Your task to perform on an android device: change the clock display to digital Image 0: 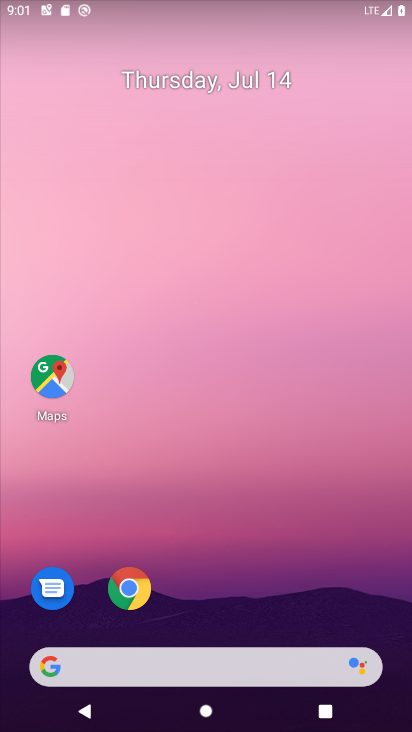
Step 0: drag from (267, 571) to (296, 57)
Your task to perform on an android device: change the clock display to digital Image 1: 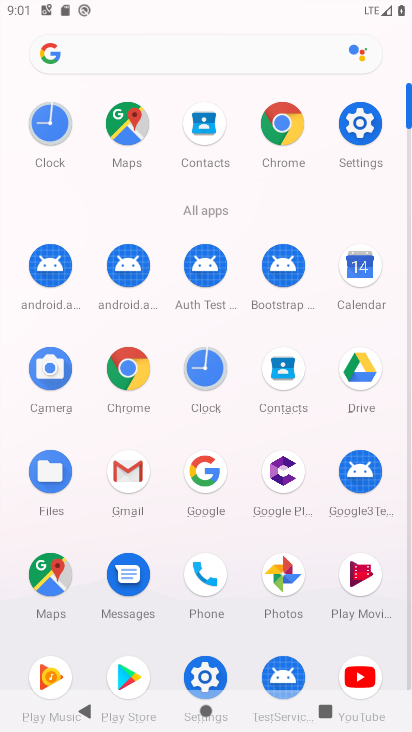
Step 1: click (196, 367)
Your task to perform on an android device: change the clock display to digital Image 2: 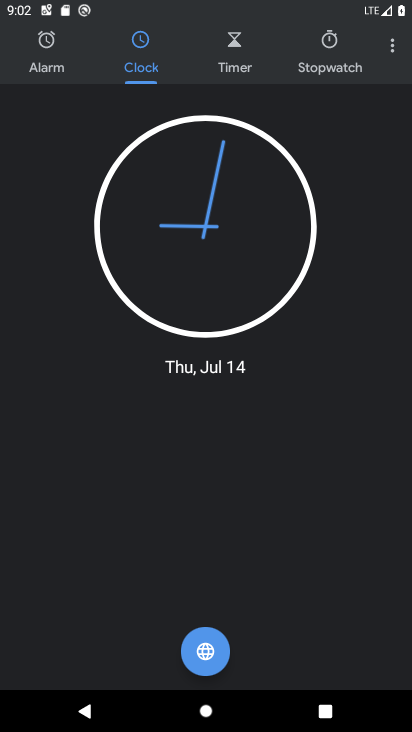
Step 2: click (396, 46)
Your task to perform on an android device: change the clock display to digital Image 3: 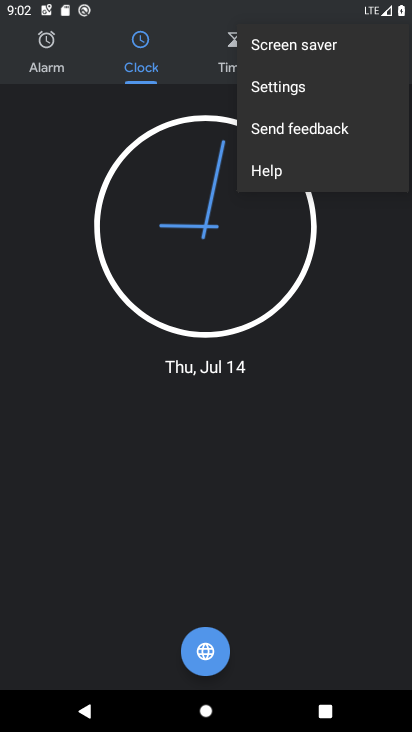
Step 3: click (287, 89)
Your task to perform on an android device: change the clock display to digital Image 4: 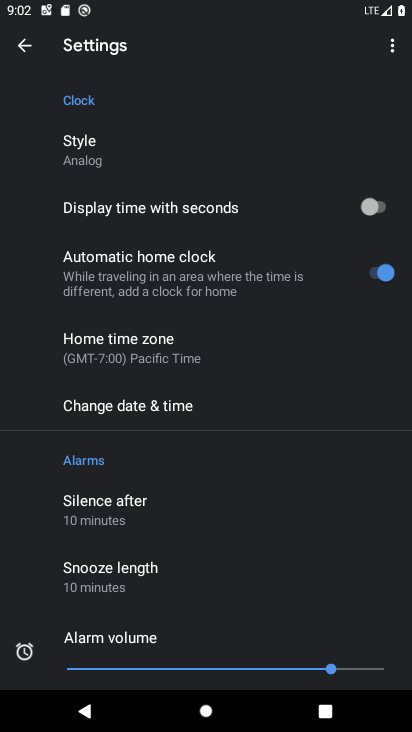
Step 4: click (94, 142)
Your task to perform on an android device: change the clock display to digital Image 5: 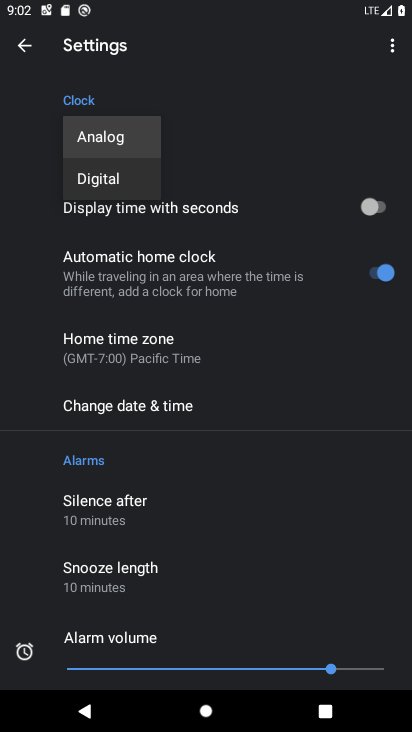
Step 5: click (110, 175)
Your task to perform on an android device: change the clock display to digital Image 6: 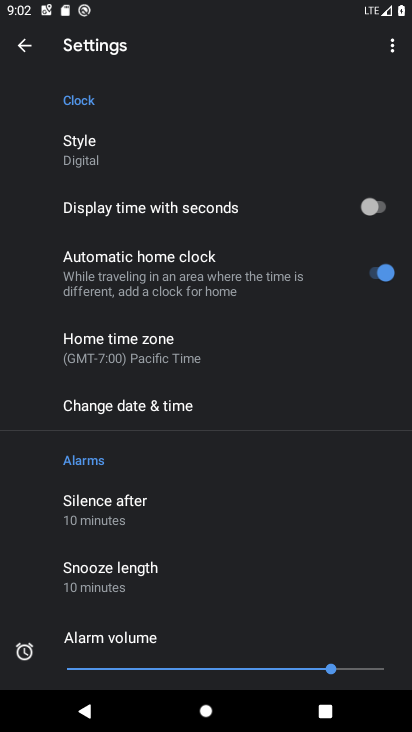
Step 6: task complete